Your task to perform on an android device: Open privacy settings Image 0: 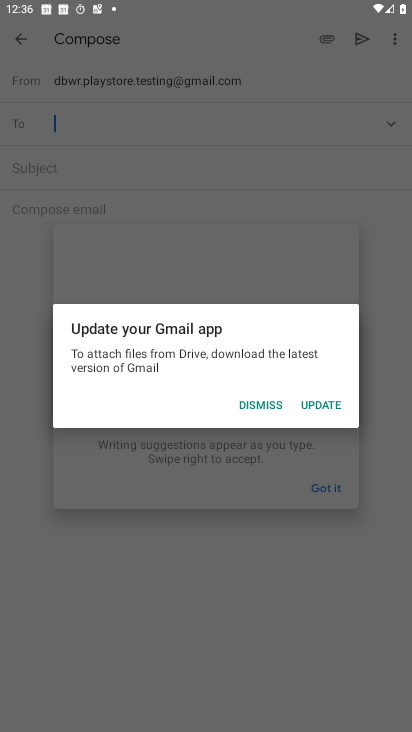
Step 0: press home button
Your task to perform on an android device: Open privacy settings Image 1: 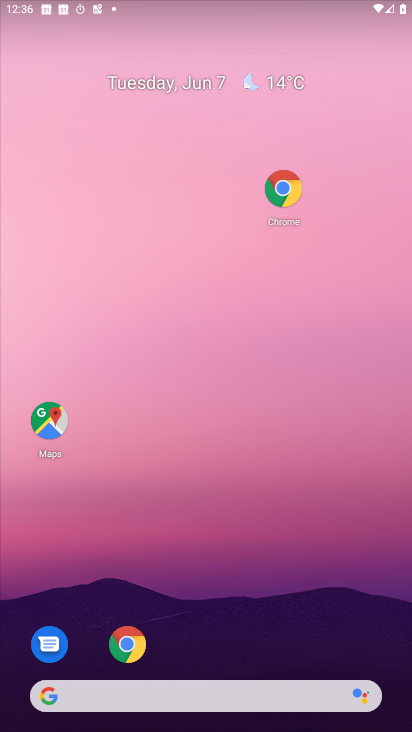
Step 1: drag from (319, 577) to (160, 105)
Your task to perform on an android device: Open privacy settings Image 2: 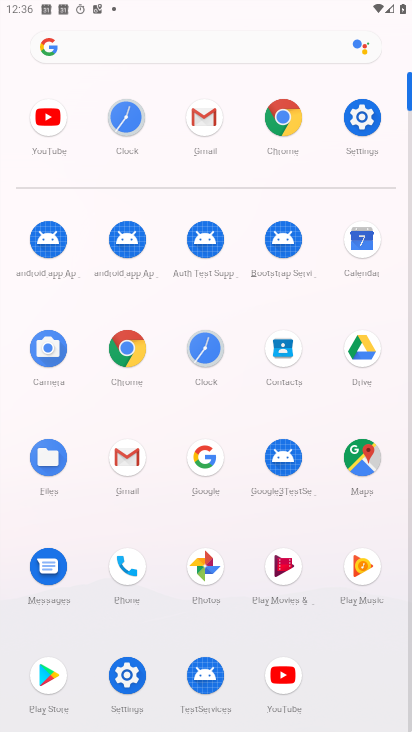
Step 2: click (362, 115)
Your task to perform on an android device: Open privacy settings Image 3: 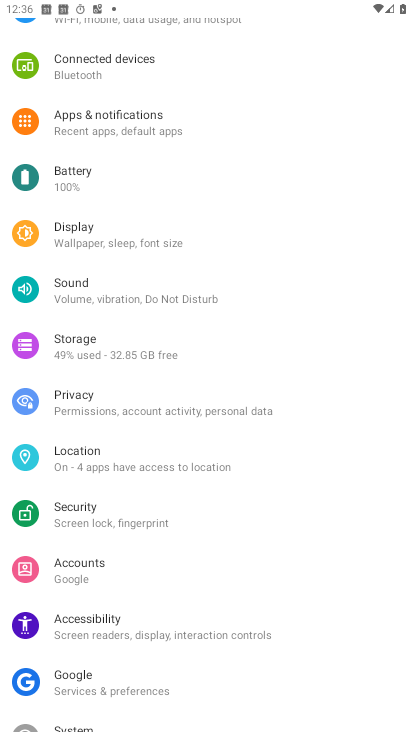
Step 3: drag from (171, 616) to (235, 192)
Your task to perform on an android device: Open privacy settings Image 4: 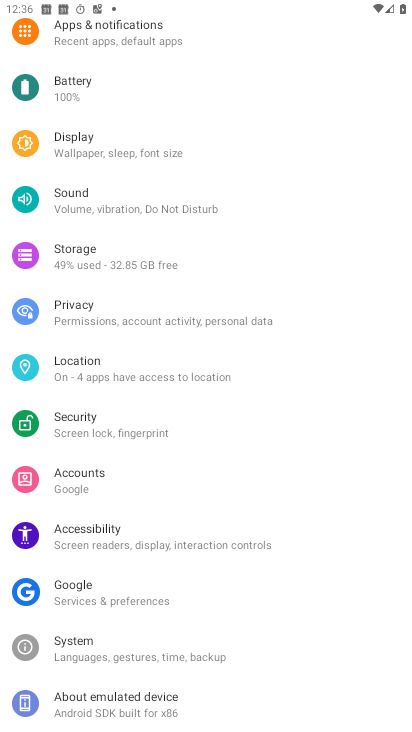
Step 4: drag from (192, 193) to (207, 674)
Your task to perform on an android device: Open privacy settings Image 5: 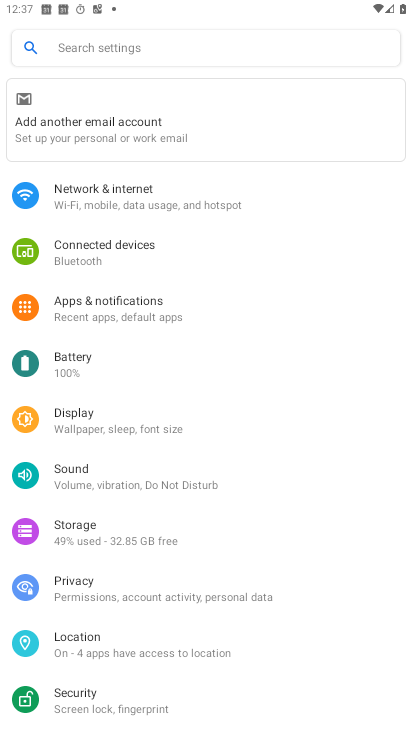
Step 5: click (97, 582)
Your task to perform on an android device: Open privacy settings Image 6: 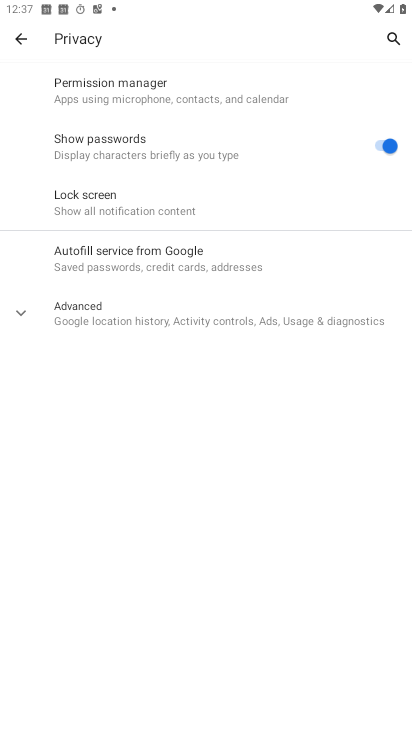
Step 6: task complete